Your task to perform on an android device: change timer sound Image 0: 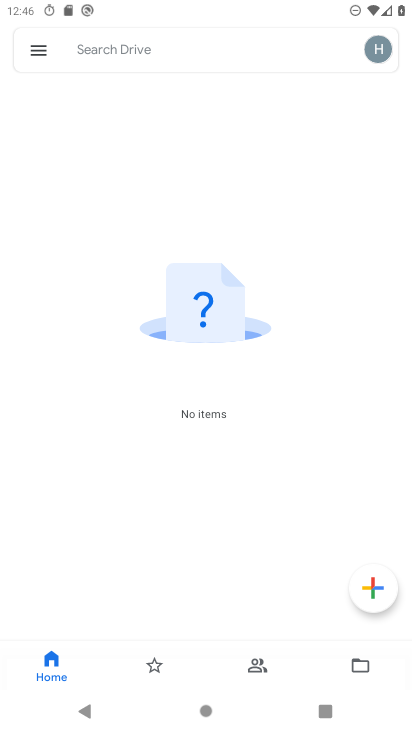
Step 0: press home button
Your task to perform on an android device: change timer sound Image 1: 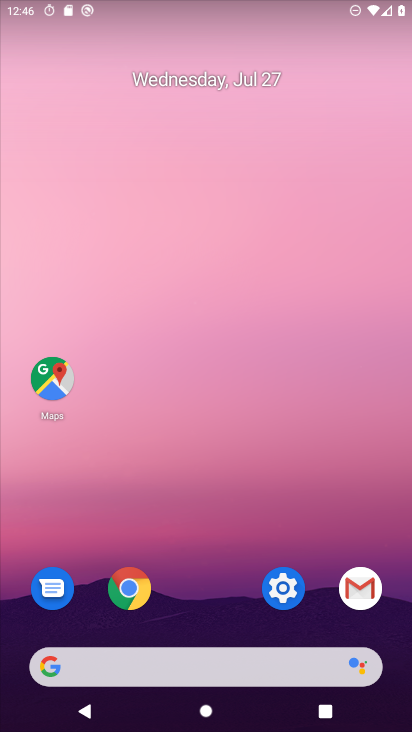
Step 1: drag from (272, 691) to (164, 194)
Your task to perform on an android device: change timer sound Image 2: 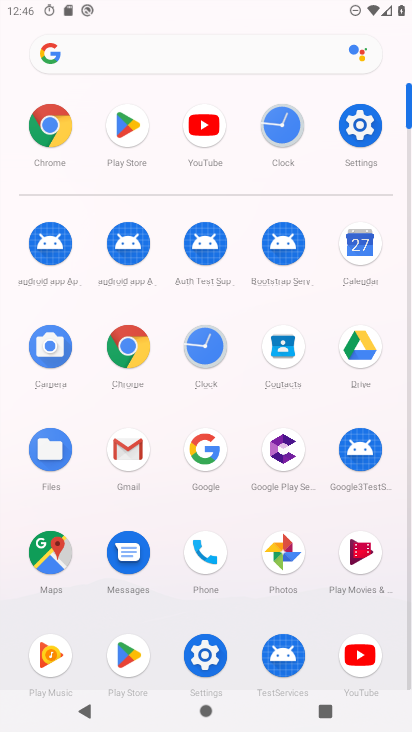
Step 2: click (215, 345)
Your task to perform on an android device: change timer sound Image 3: 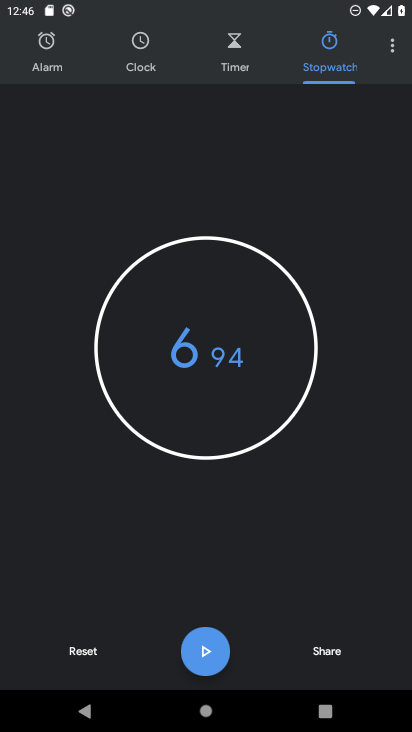
Step 3: click (232, 67)
Your task to perform on an android device: change timer sound Image 4: 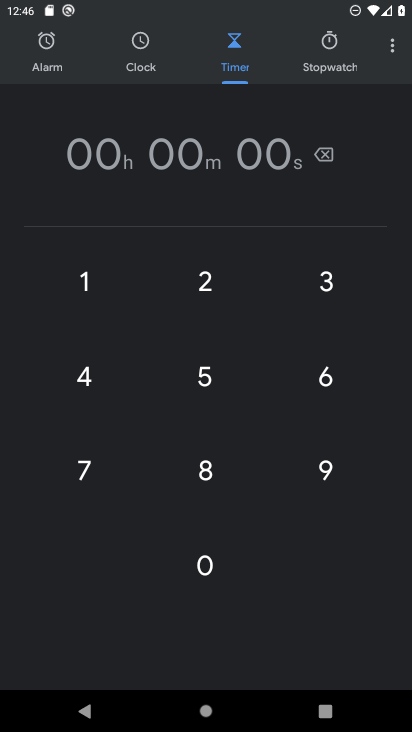
Step 4: click (384, 51)
Your task to perform on an android device: change timer sound Image 5: 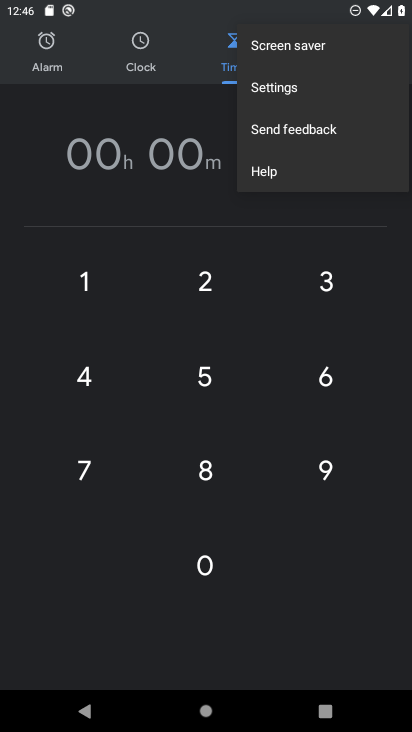
Step 5: click (279, 94)
Your task to perform on an android device: change timer sound Image 6: 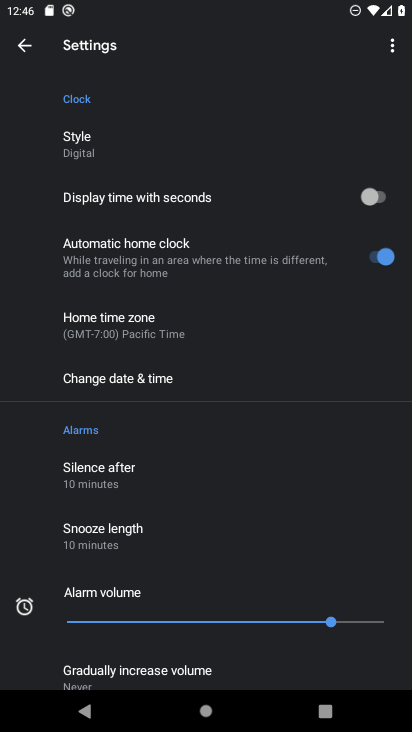
Step 6: drag from (172, 553) to (177, 403)
Your task to perform on an android device: change timer sound Image 7: 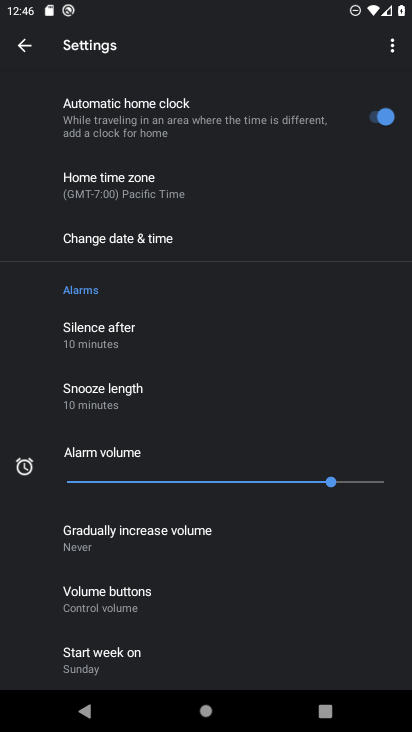
Step 7: drag from (147, 628) to (173, 442)
Your task to perform on an android device: change timer sound Image 8: 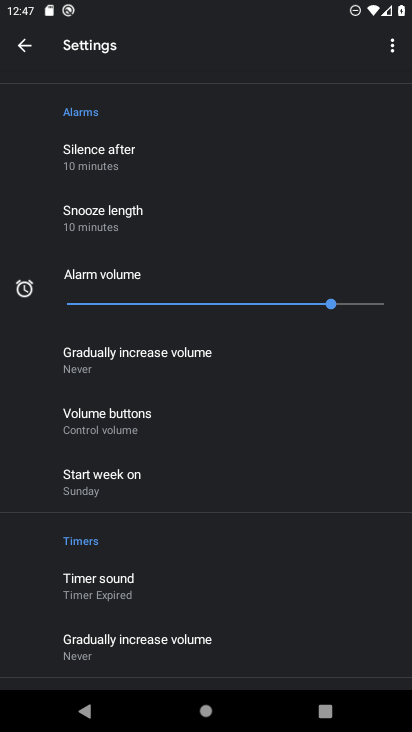
Step 8: click (161, 577)
Your task to perform on an android device: change timer sound Image 9: 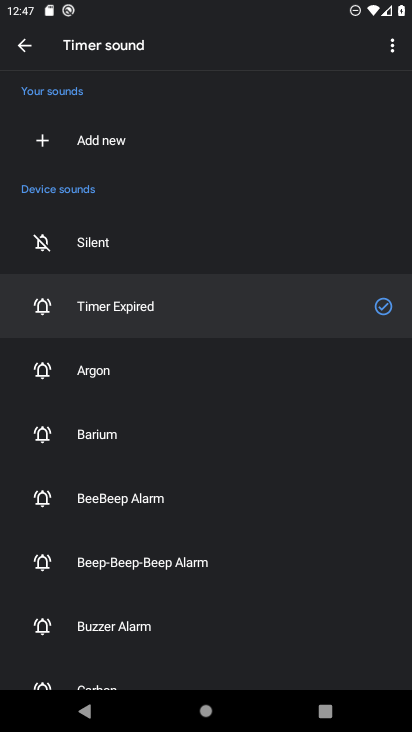
Step 9: click (109, 502)
Your task to perform on an android device: change timer sound Image 10: 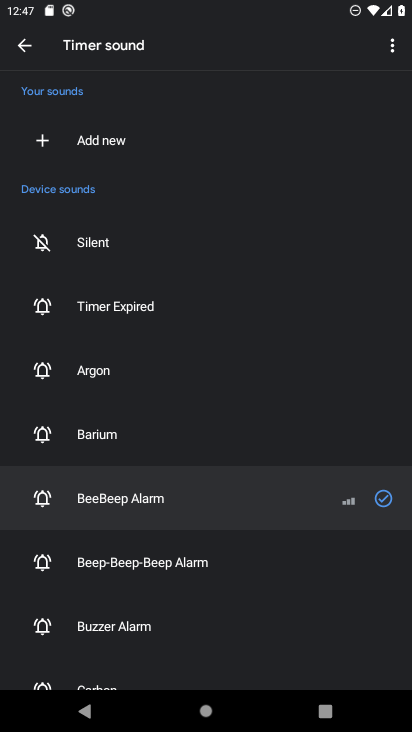
Step 10: task complete